Your task to perform on an android device: turn off location Image 0: 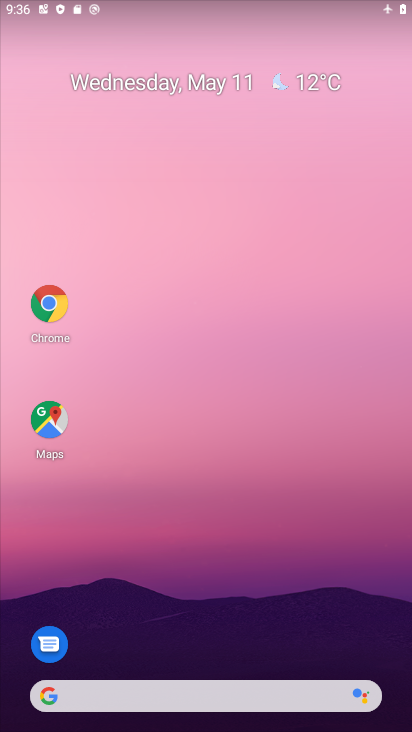
Step 0: drag from (150, 653) to (238, 146)
Your task to perform on an android device: turn off location Image 1: 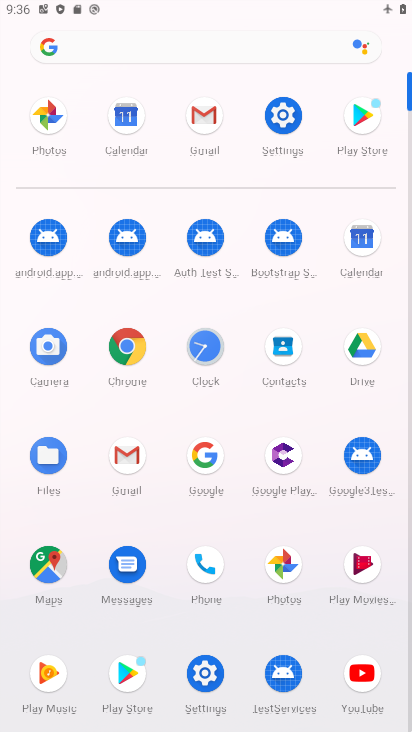
Step 1: click (282, 122)
Your task to perform on an android device: turn off location Image 2: 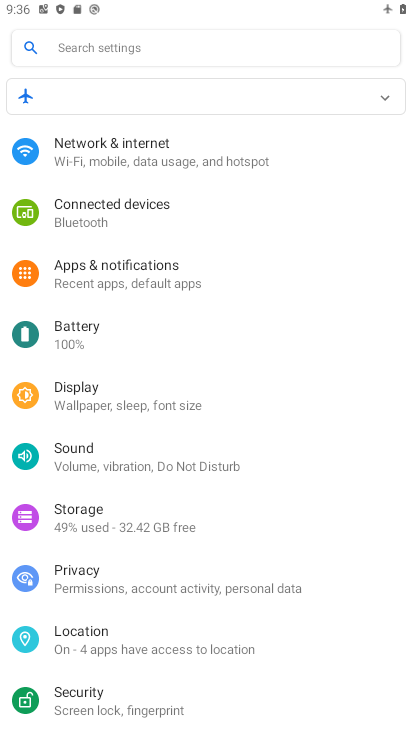
Step 2: click (144, 636)
Your task to perform on an android device: turn off location Image 3: 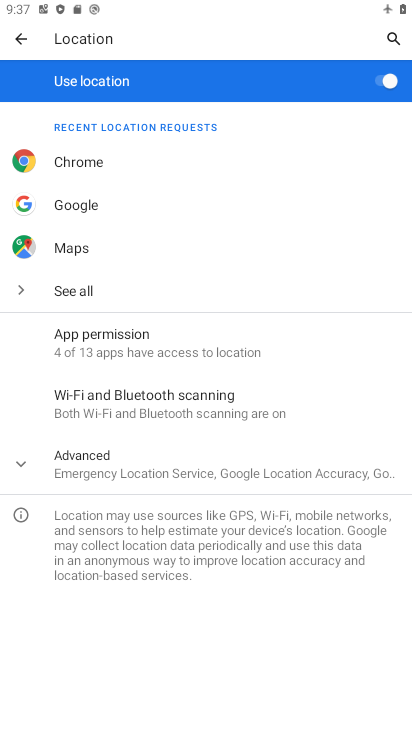
Step 3: click (388, 80)
Your task to perform on an android device: turn off location Image 4: 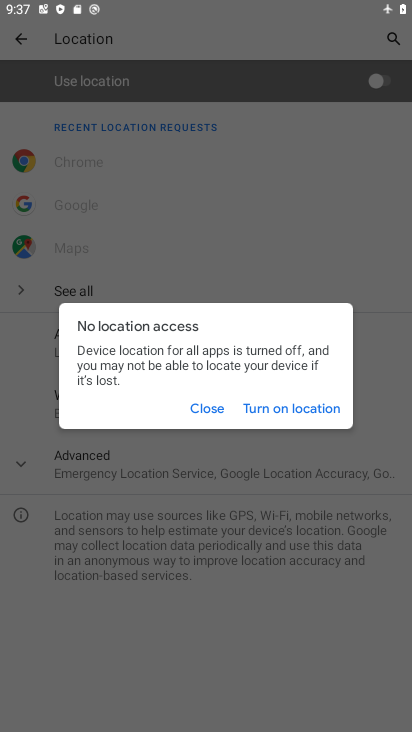
Step 4: task complete